Your task to perform on an android device: Go to display settings Image 0: 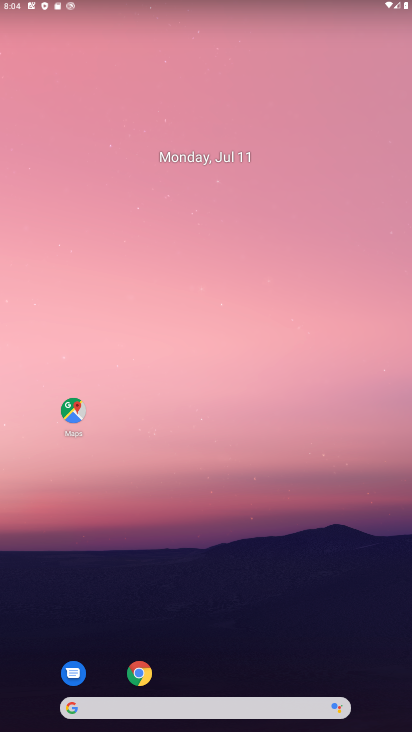
Step 0: press home button
Your task to perform on an android device: Go to display settings Image 1: 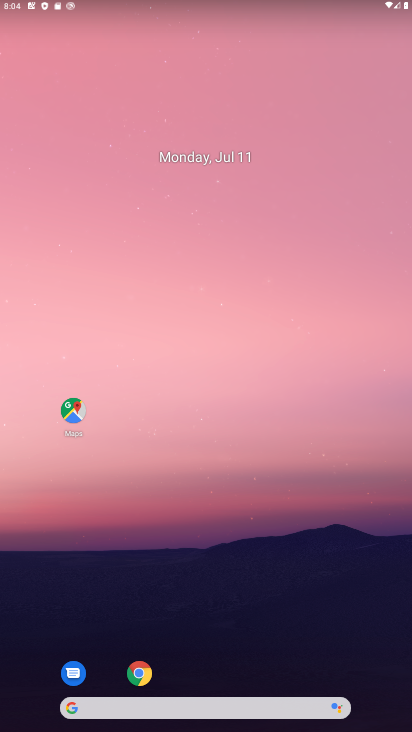
Step 1: drag from (208, 672) to (208, 170)
Your task to perform on an android device: Go to display settings Image 2: 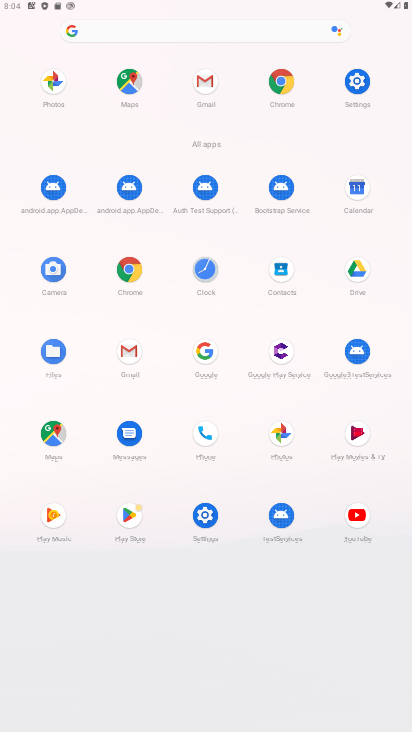
Step 2: click (204, 509)
Your task to perform on an android device: Go to display settings Image 3: 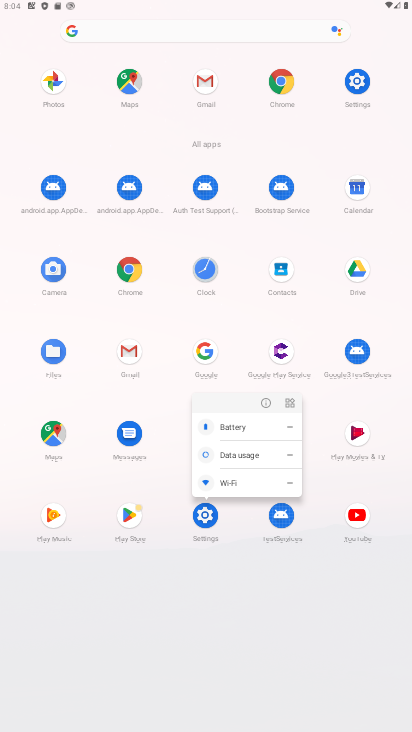
Step 3: click (203, 511)
Your task to perform on an android device: Go to display settings Image 4: 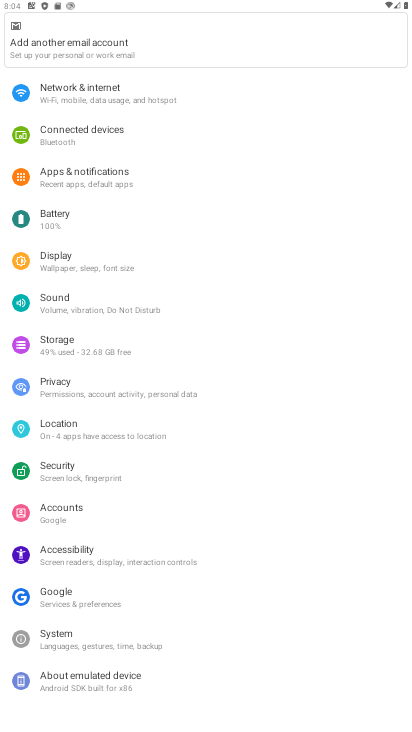
Step 4: click (89, 260)
Your task to perform on an android device: Go to display settings Image 5: 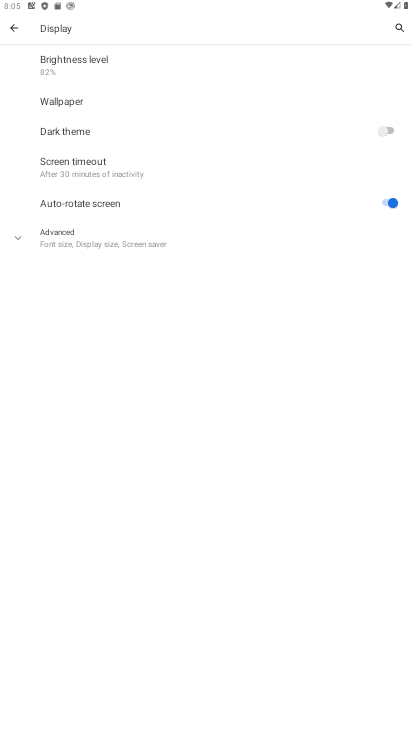
Step 5: click (15, 231)
Your task to perform on an android device: Go to display settings Image 6: 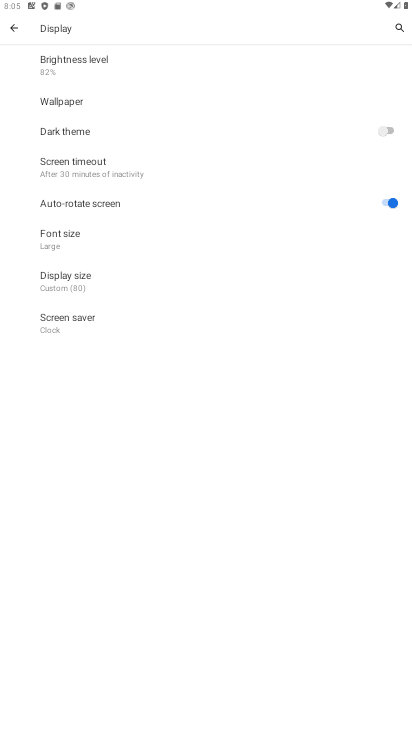
Step 6: task complete